Your task to perform on an android device: turn off notifications in google photos Image 0: 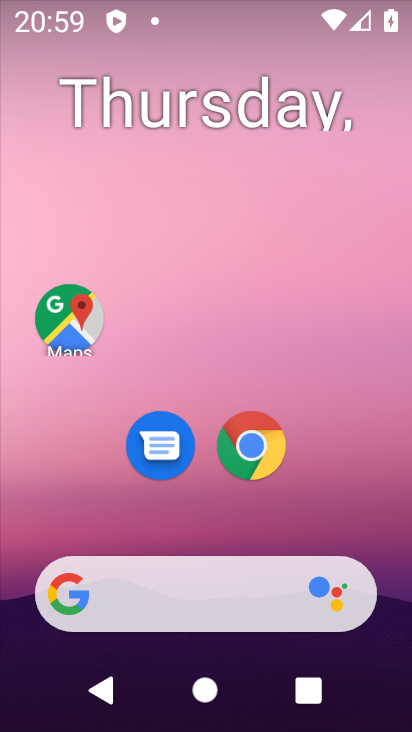
Step 0: press home button
Your task to perform on an android device: turn off notifications in google photos Image 1: 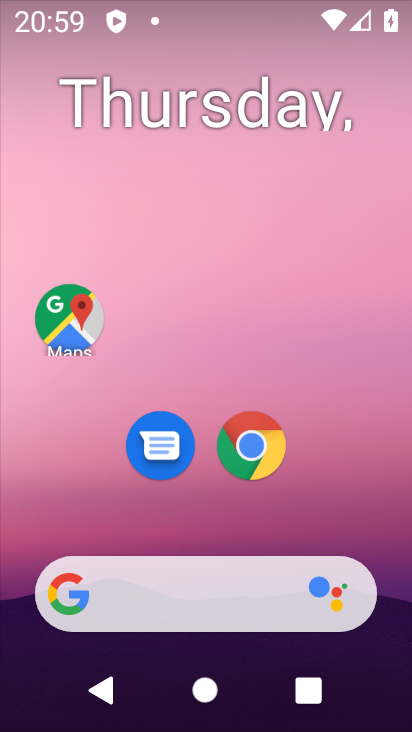
Step 1: drag from (13, 667) to (275, 75)
Your task to perform on an android device: turn off notifications in google photos Image 2: 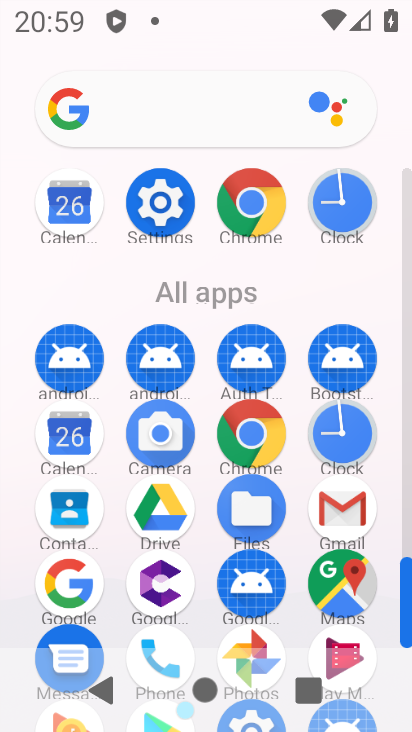
Step 2: click (138, 198)
Your task to perform on an android device: turn off notifications in google photos Image 3: 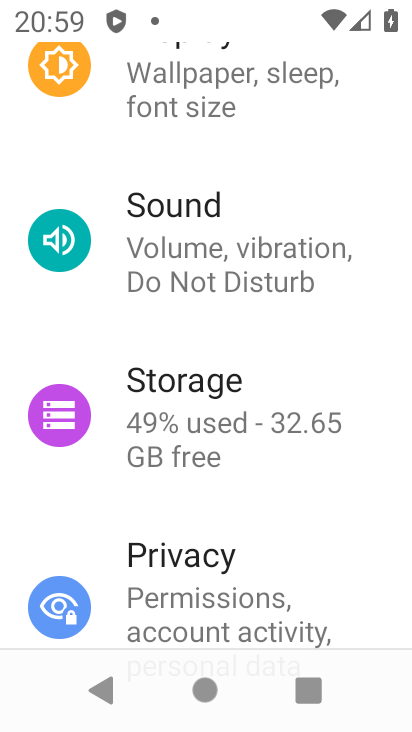
Step 3: drag from (249, 104) to (169, 506)
Your task to perform on an android device: turn off notifications in google photos Image 4: 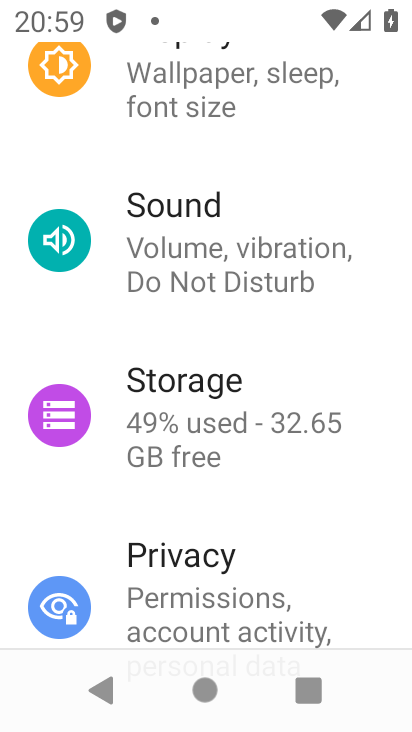
Step 4: drag from (170, 143) to (93, 625)
Your task to perform on an android device: turn off notifications in google photos Image 5: 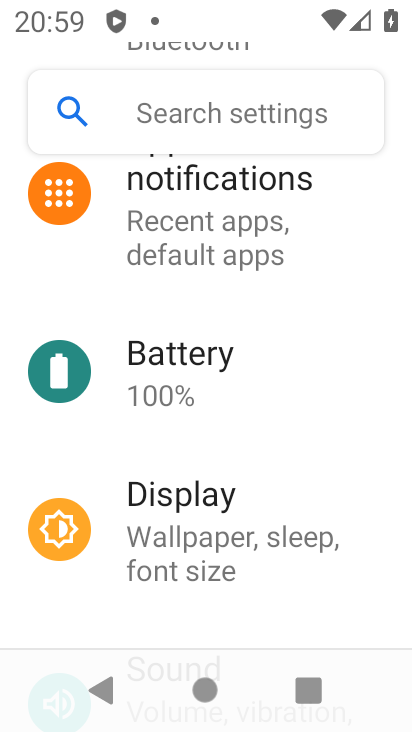
Step 5: click (248, 190)
Your task to perform on an android device: turn off notifications in google photos Image 6: 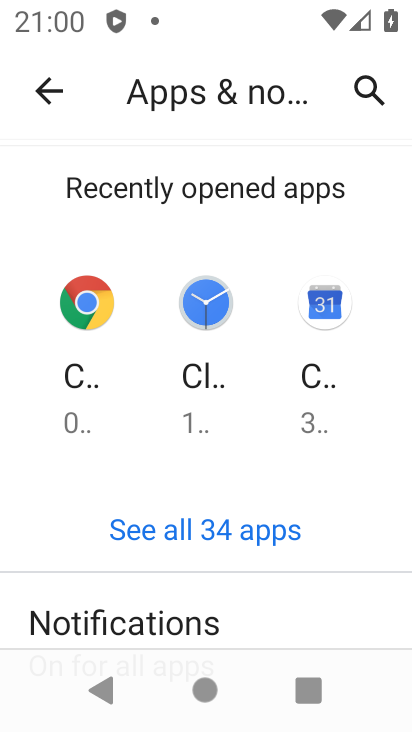
Step 6: press back button
Your task to perform on an android device: turn off notifications in google photos Image 7: 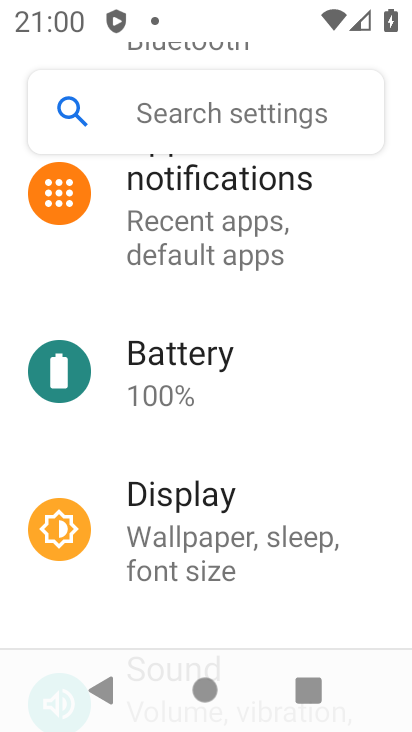
Step 7: press home button
Your task to perform on an android device: turn off notifications in google photos Image 8: 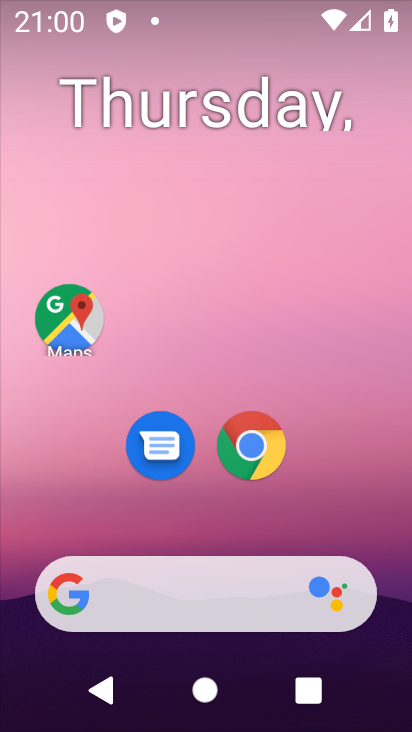
Step 8: drag from (39, 445) to (174, 174)
Your task to perform on an android device: turn off notifications in google photos Image 9: 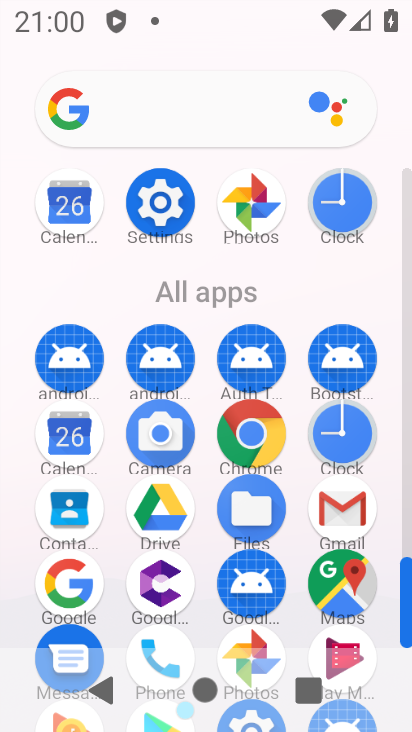
Step 9: click (240, 204)
Your task to perform on an android device: turn off notifications in google photos Image 10: 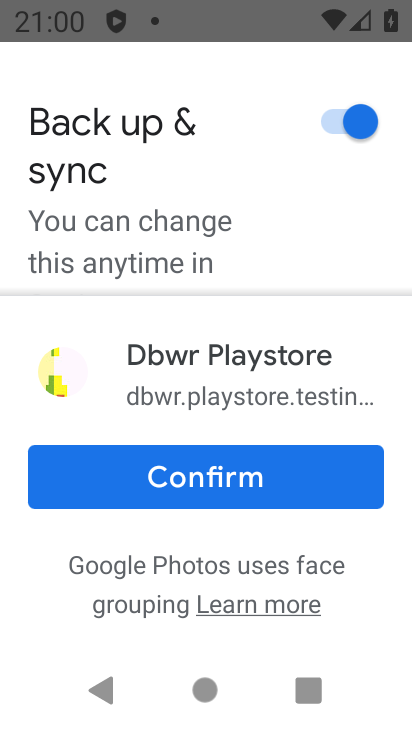
Step 10: click (208, 471)
Your task to perform on an android device: turn off notifications in google photos Image 11: 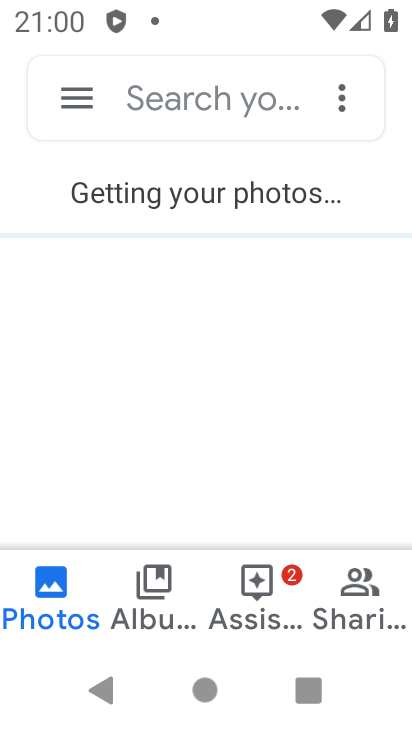
Step 11: click (81, 93)
Your task to perform on an android device: turn off notifications in google photos Image 12: 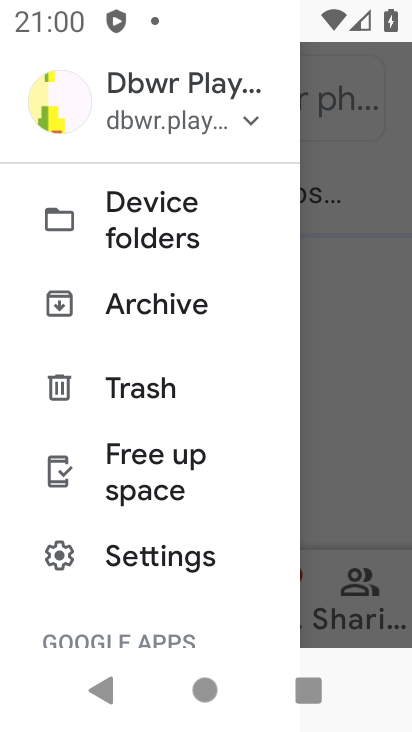
Step 12: drag from (4, 624) to (238, 111)
Your task to perform on an android device: turn off notifications in google photos Image 13: 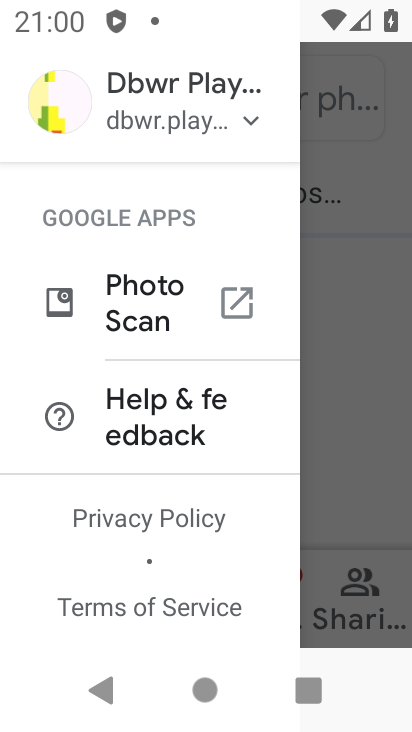
Step 13: drag from (27, 559) to (210, 226)
Your task to perform on an android device: turn off notifications in google photos Image 14: 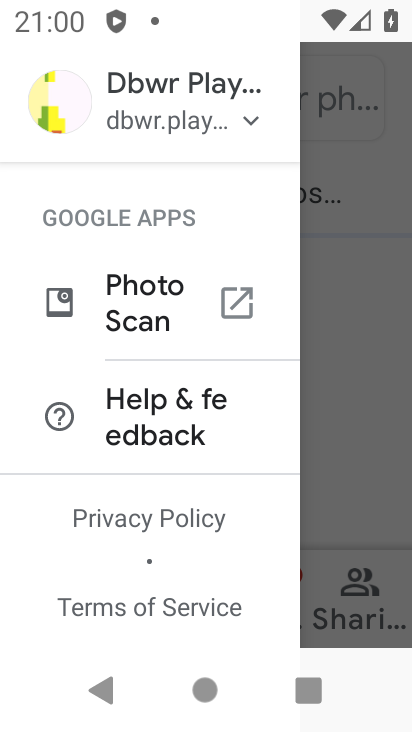
Step 14: drag from (108, 223) to (85, 521)
Your task to perform on an android device: turn off notifications in google photos Image 15: 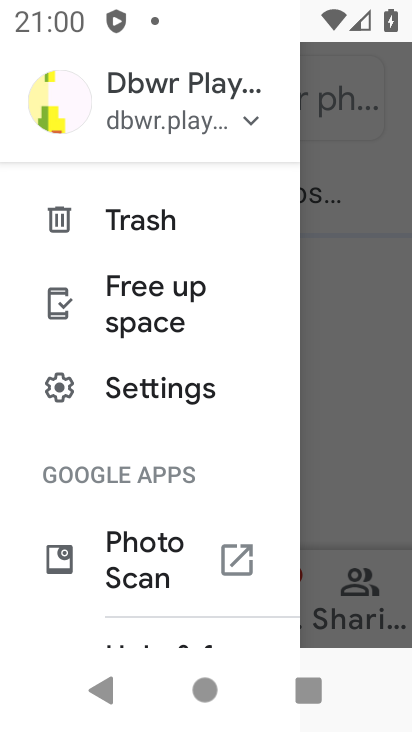
Step 15: click (130, 385)
Your task to perform on an android device: turn off notifications in google photos Image 16: 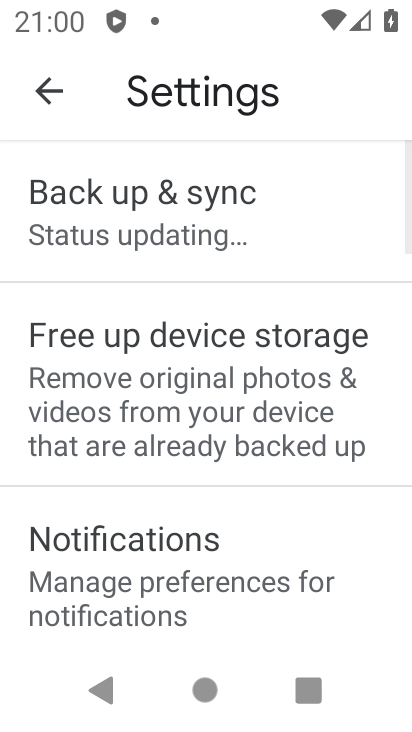
Step 16: click (77, 580)
Your task to perform on an android device: turn off notifications in google photos Image 17: 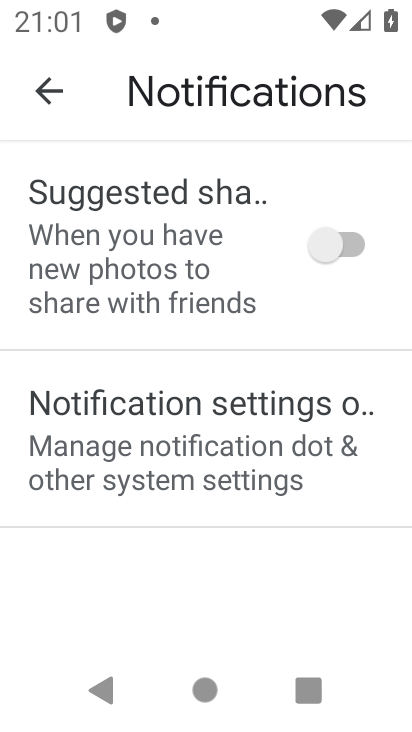
Step 17: click (107, 429)
Your task to perform on an android device: turn off notifications in google photos Image 18: 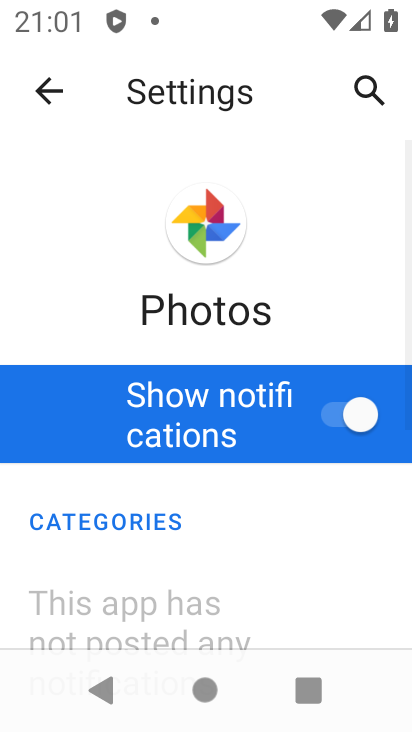
Step 18: click (374, 413)
Your task to perform on an android device: turn off notifications in google photos Image 19: 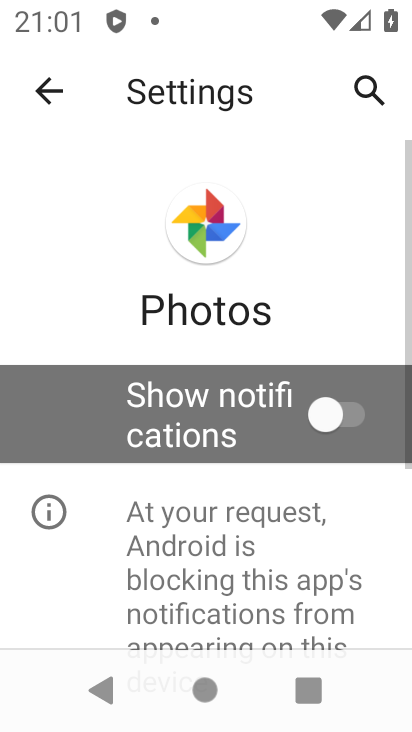
Step 19: task complete